Your task to perform on an android device: Open eBay Image 0: 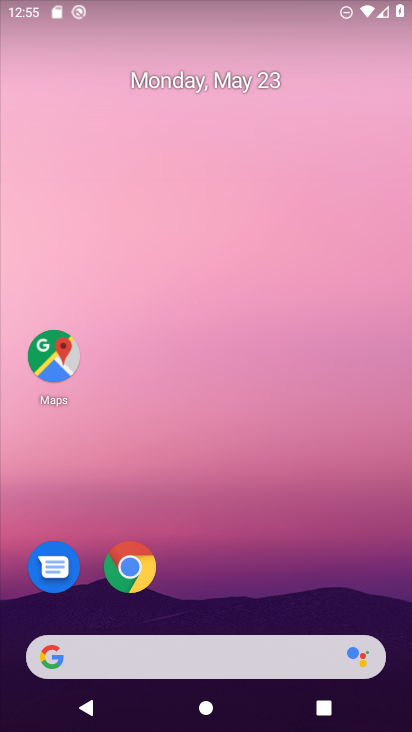
Step 0: click (129, 572)
Your task to perform on an android device: Open eBay Image 1: 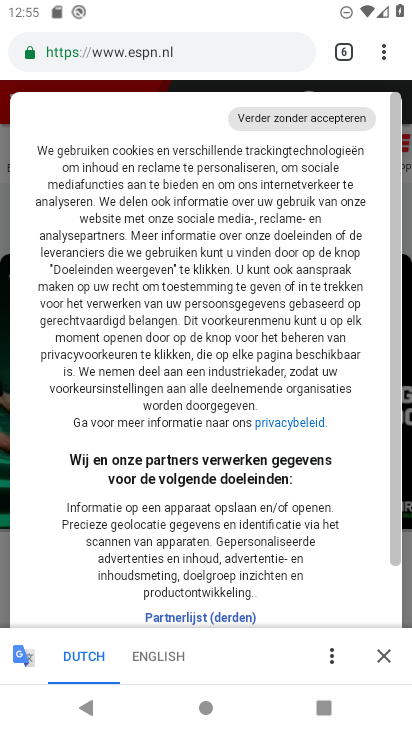
Step 1: click (336, 52)
Your task to perform on an android device: Open eBay Image 2: 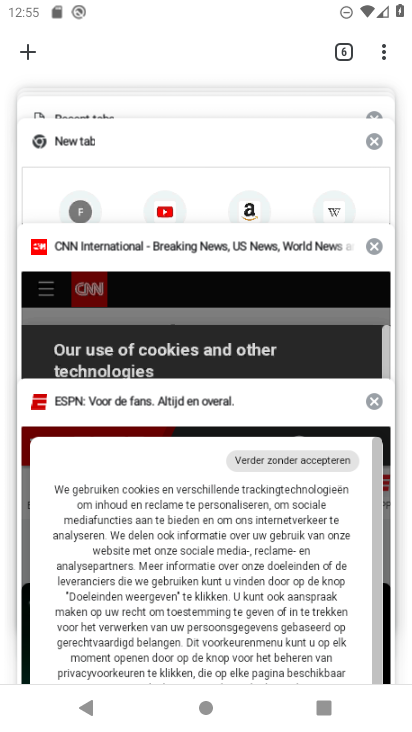
Step 2: click (17, 54)
Your task to perform on an android device: Open eBay Image 3: 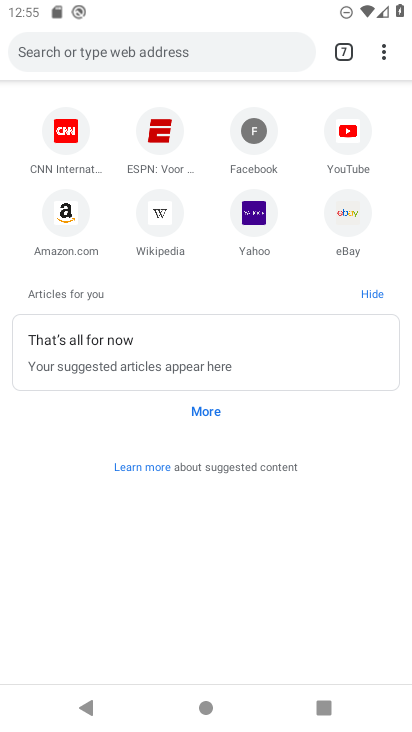
Step 3: click (329, 203)
Your task to perform on an android device: Open eBay Image 4: 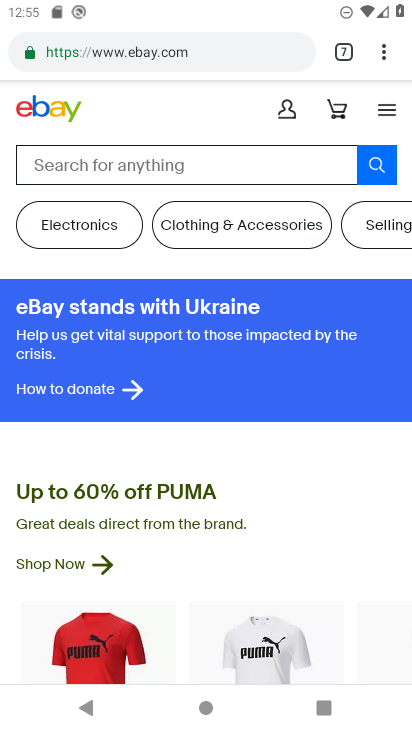
Step 4: task complete